Your task to perform on an android device: What is the recent news? Image 0: 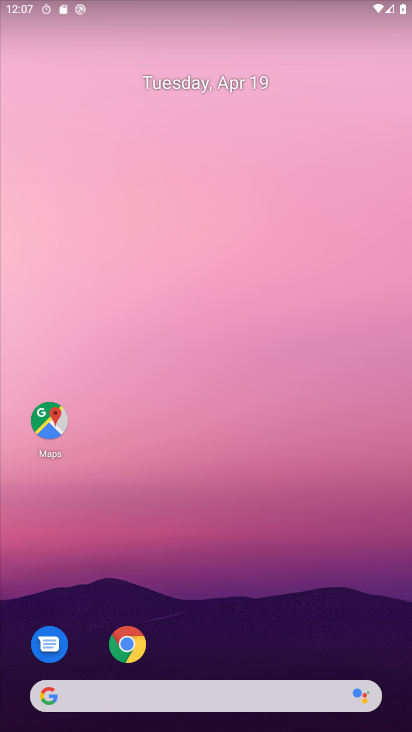
Step 0: drag from (276, 641) to (273, 227)
Your task to perform on an android device: What is the recent news? Image 1: 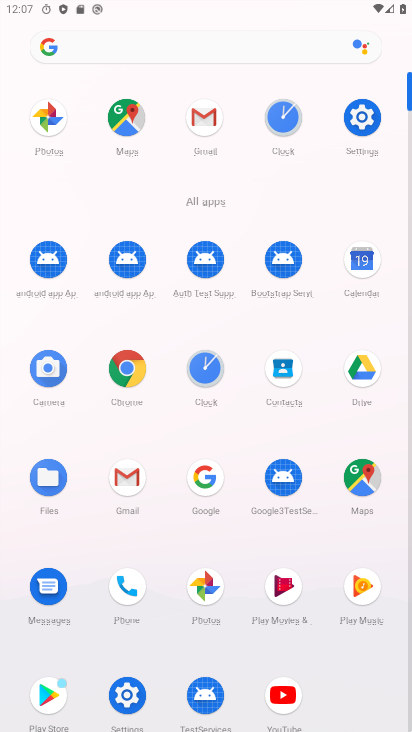
Step 1: click (121, 360)
Your task to perform on an android device: What is the recent news? Image 2: 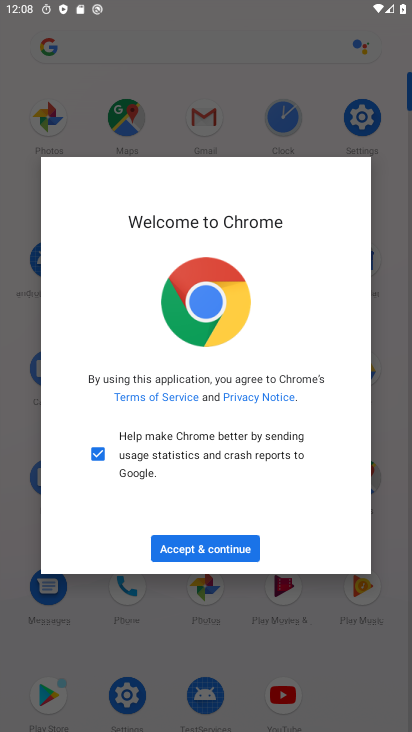
Step 2: click (210, 547)
Your task to perform on an android device: What is the recent news? Image 3: 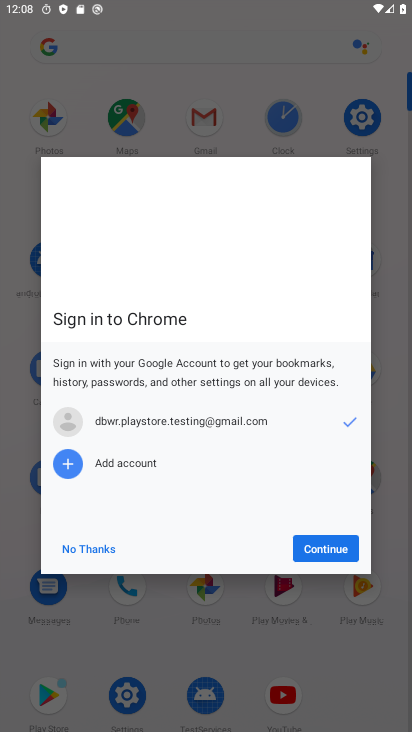
Step 3: click (325, 548)
Your task to perform on an android device: What is the recent news? Image 4: 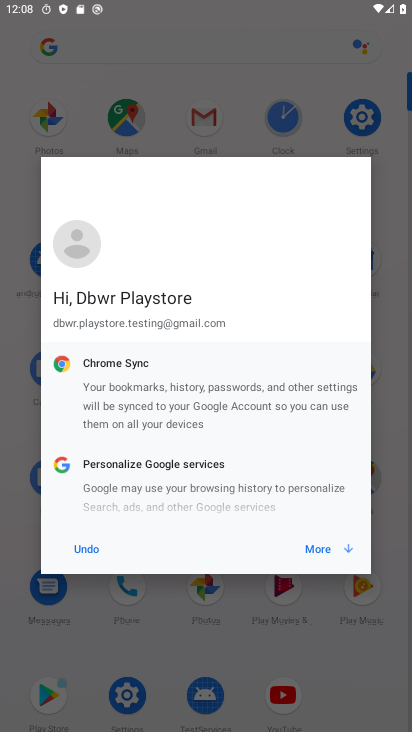
Step 4: click (325, 547)
Your task to perform on an android device: What is the recent news? Image 5: 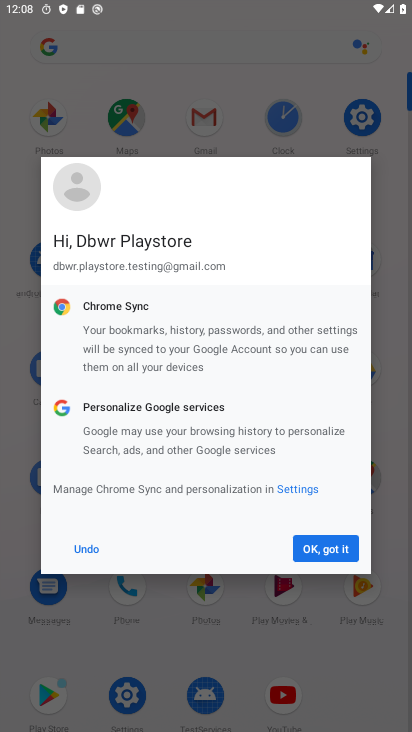
Step 5: click (320, 548)
Your task to perform on an android device: What is the recent news? Image 6: 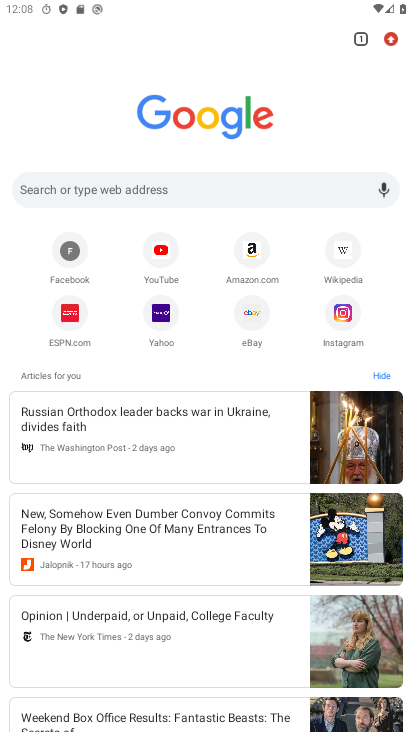
Step 6: click (184, 179)
Your task to perform on an android device: What is the recent news? Image 7: 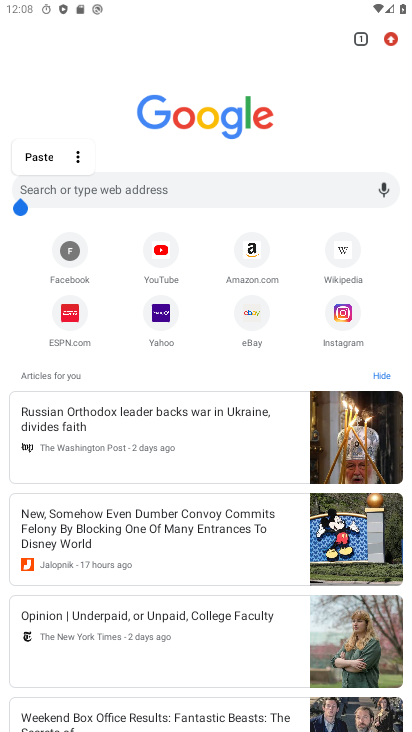
Step 7: type "What is the recent news?"
Your task to perform on an android device: What is the recent news? Image 8: 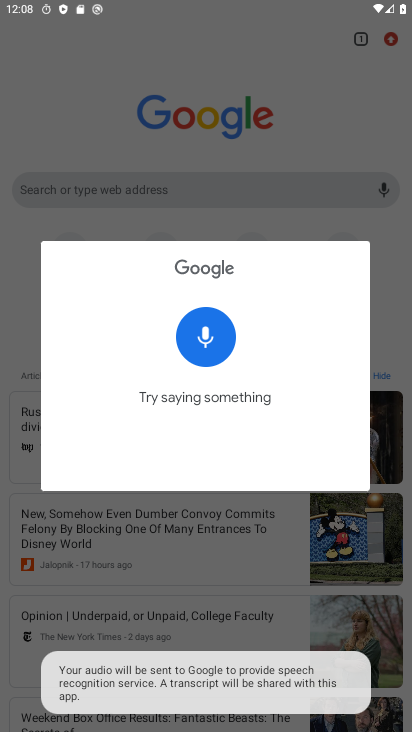
Step 8: click (55, 193)
Your task to perform on an android device: What is the recent news? Image 9: 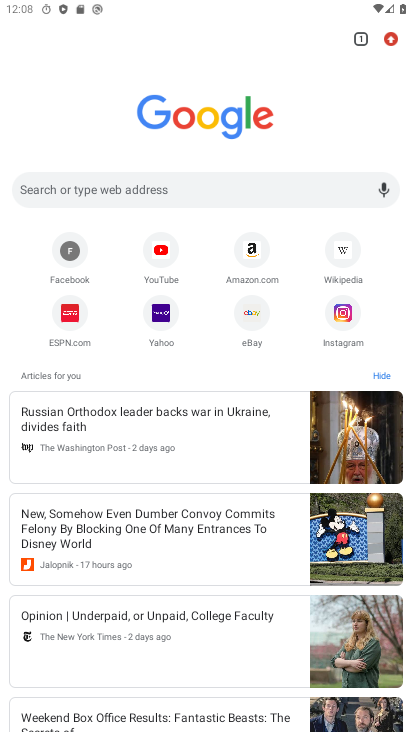
Step 9: click (199, 178)
Your task to perform on an android device: What is the recent news? Image 10: 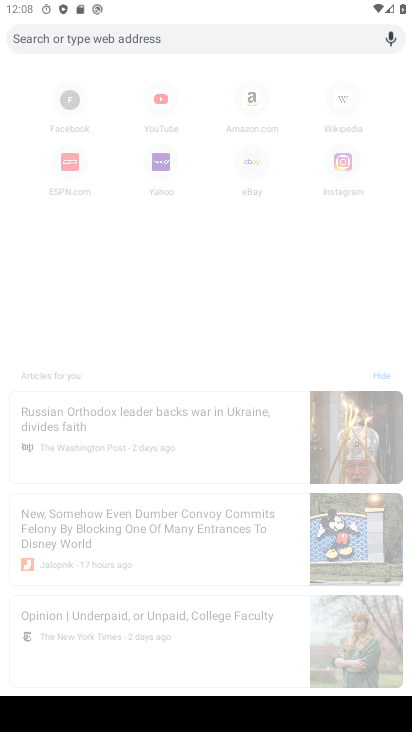
Step 10: type "What is the recent news?"
Your task to perform on an android device: What is the recent news? Image 11: 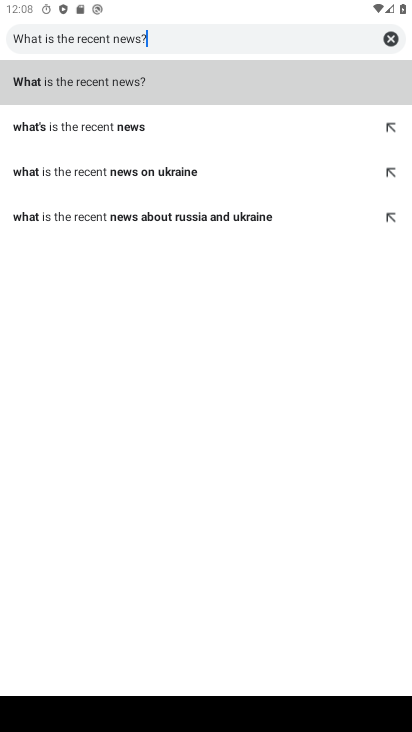
Step 11: click (291, 35)
Your task to perform on an android device: What is the recent news? Image 12: 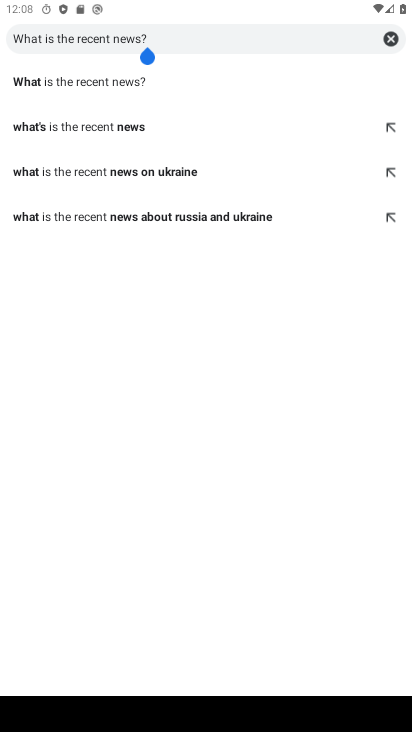
Step 12: click (242, 80)
Your task to perform on an android device: What is the recent news? Image 13: 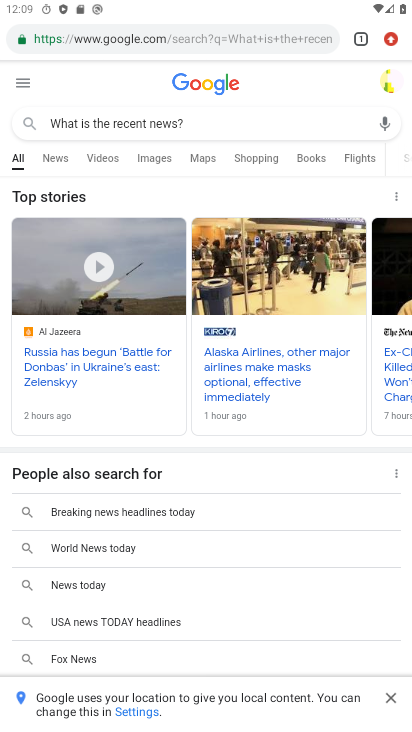
Step 13: task complete